Your task to perform on an android device: add a contact in the contacts app Image 0: 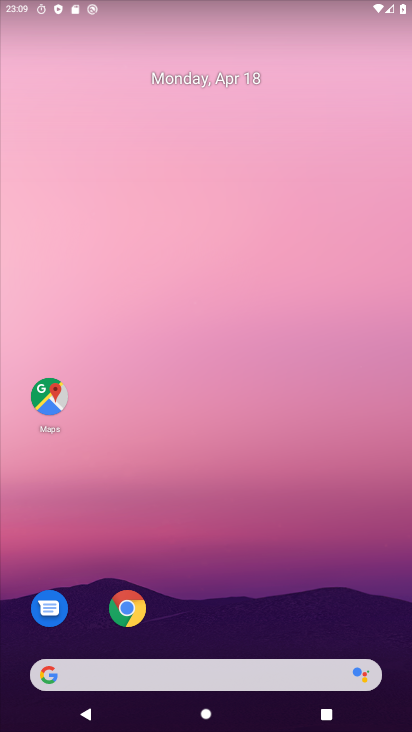
Step 0: drag from (240, 559) to (213, 160)
Your task to perform on an android device: add a contact in the contacts app Image 1: 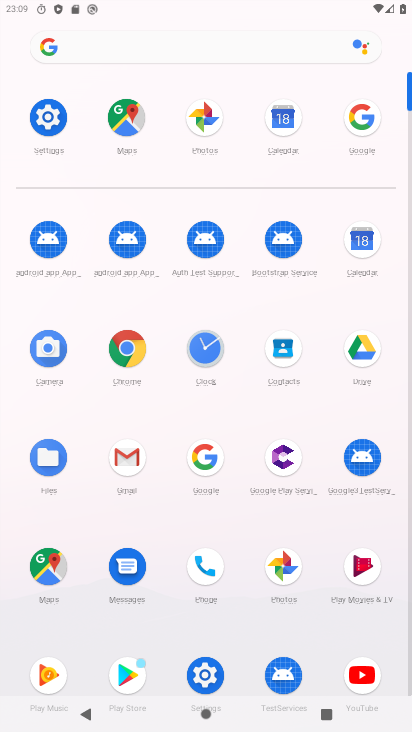
Step 1: click (286, 345)
Your task to perform on an android device: add a contact in the contacts app Image 2: 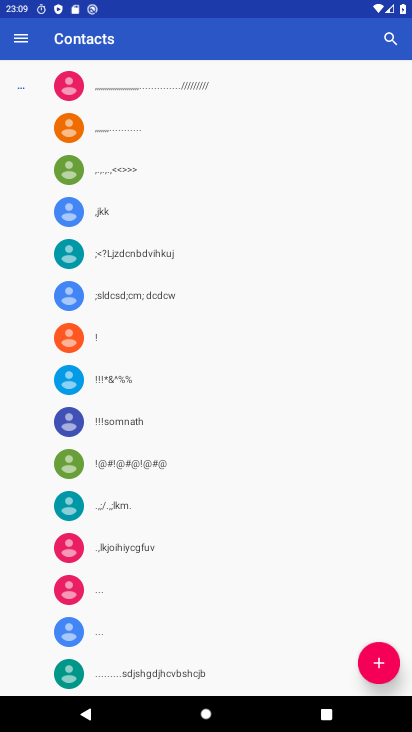
Step 2: click (377, 662)
Your task to perform on an android device: add a contact in the contacts app Image 3: 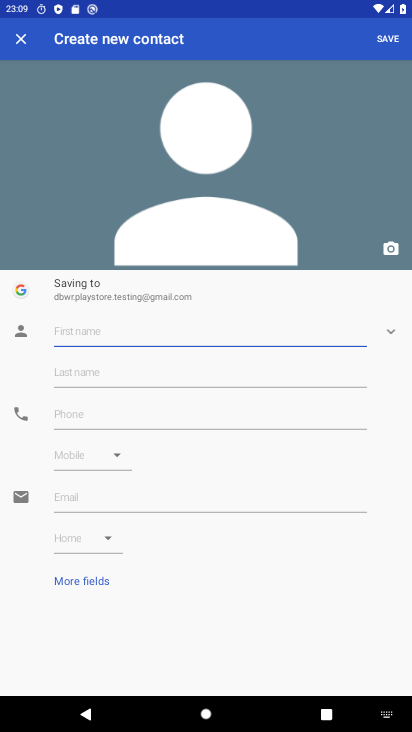
Step 3: click (165, 332)
Your task to perform on an android device: add a contact in the contacts app Image 4: 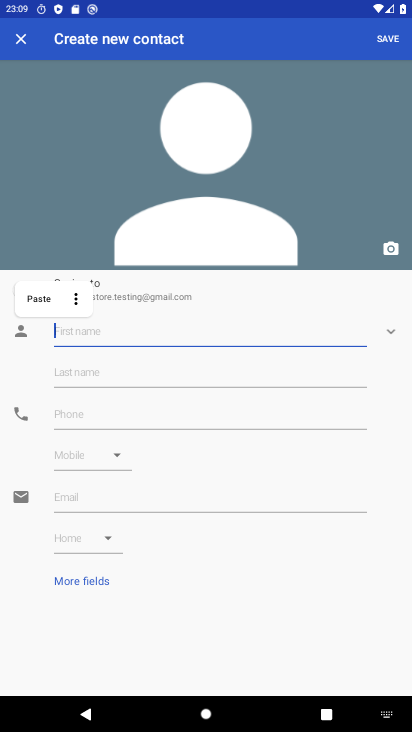
Step 4: type "nmvh"
Your task to perform on an android device: add a contact in the contacts app Image 5: 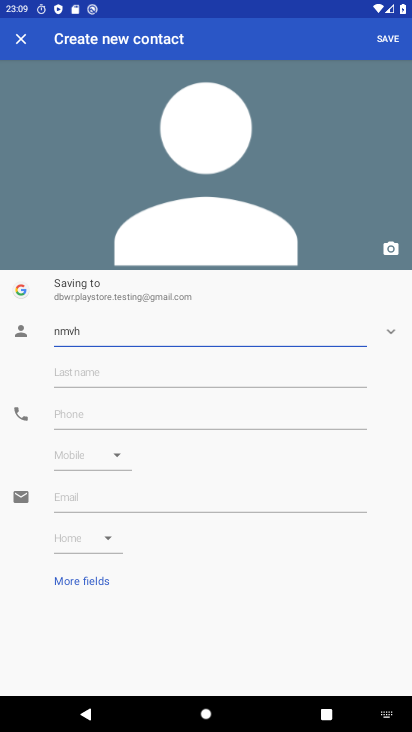
Step 5: click (389, 40)
Your task to perform on an android device: add a contact in the contacts app Image 6: 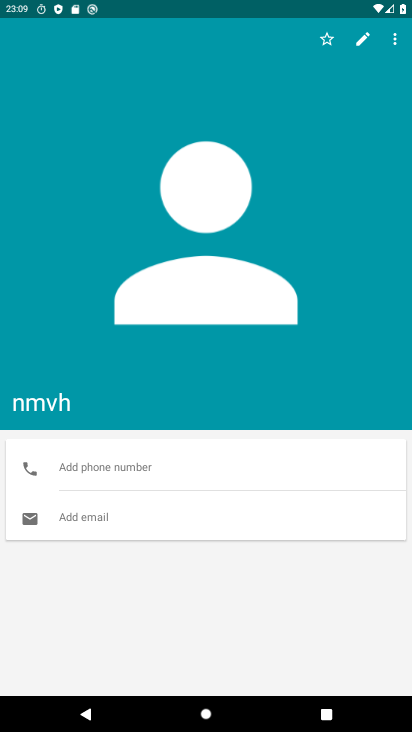
Step 6: task complete